Your task to perform on an android device: turn off notifications settings in the gmail app Image 0: 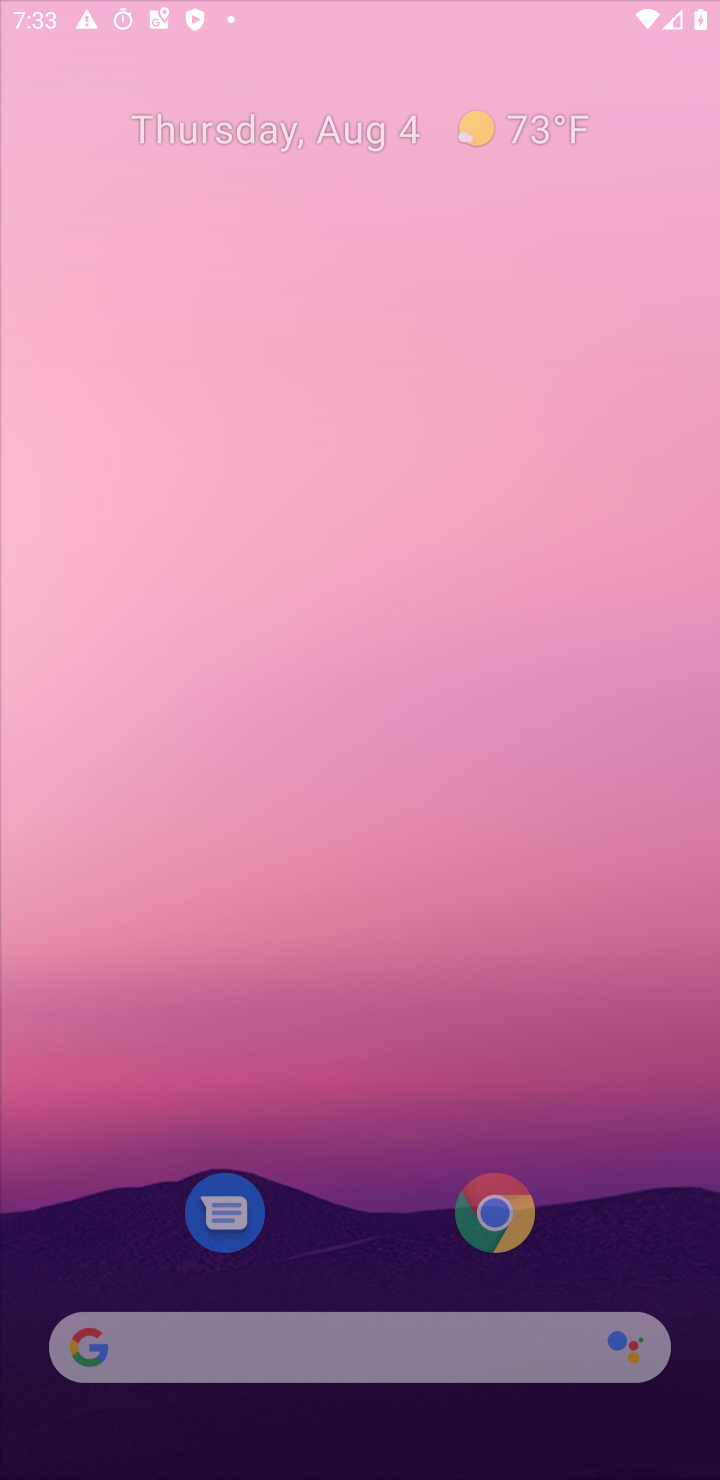
Step 0: press home button
Your task to perform on an android device: turn off notifications settings in the gmail app Image 1: 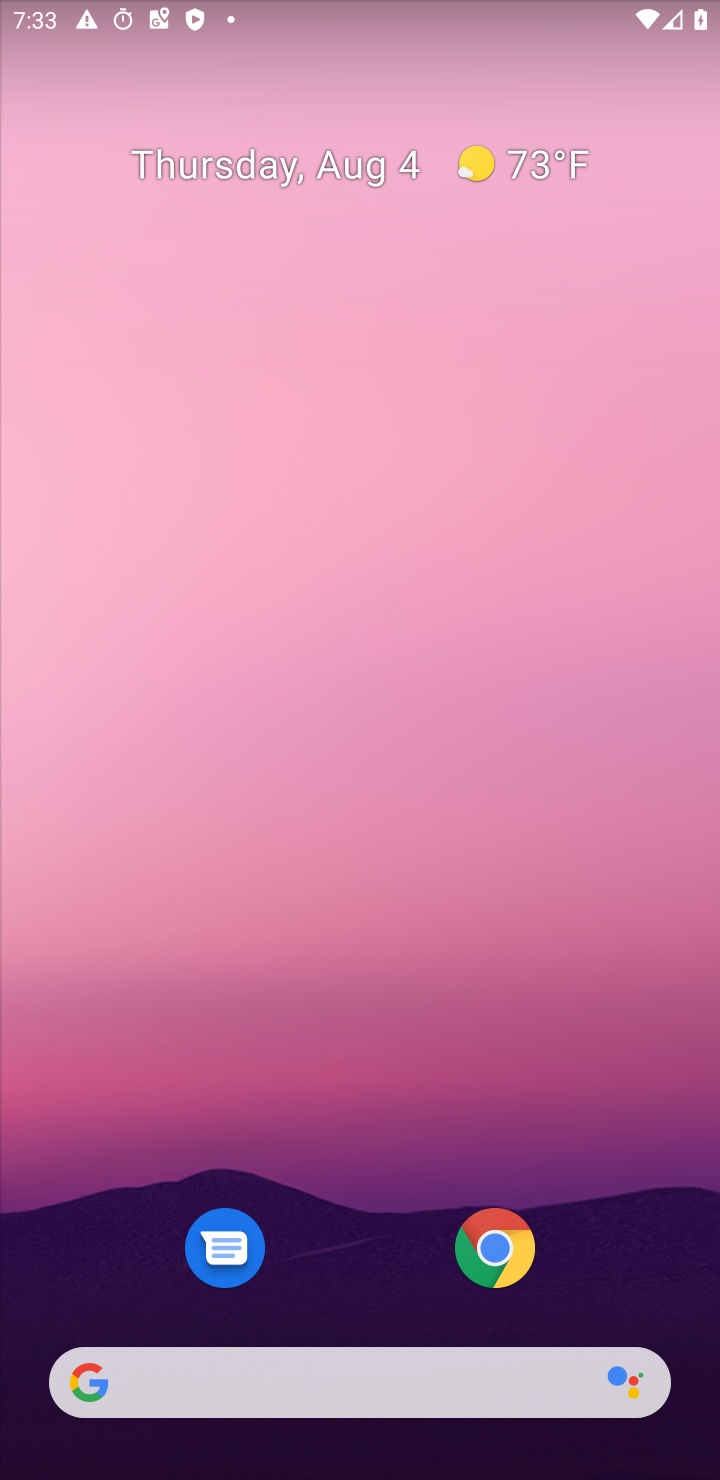
Step 1: drag from (389, 1368) to (409, 264)
Your task to perform on an android device: turn off notifications settings in the gmail app Image 2: 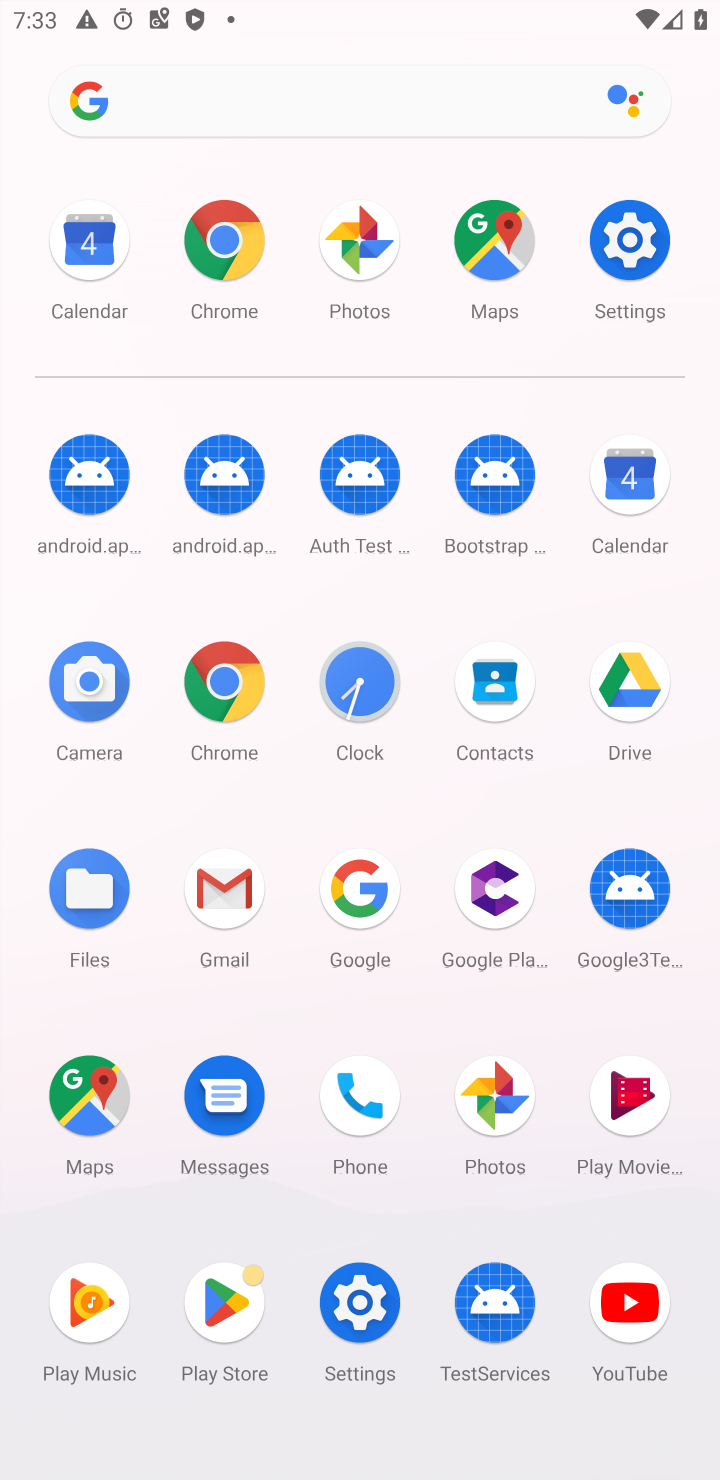
Step 2: click (241, 893)
Your task to perform on an android device: turn off notifications settings in the gmail app Image 3: 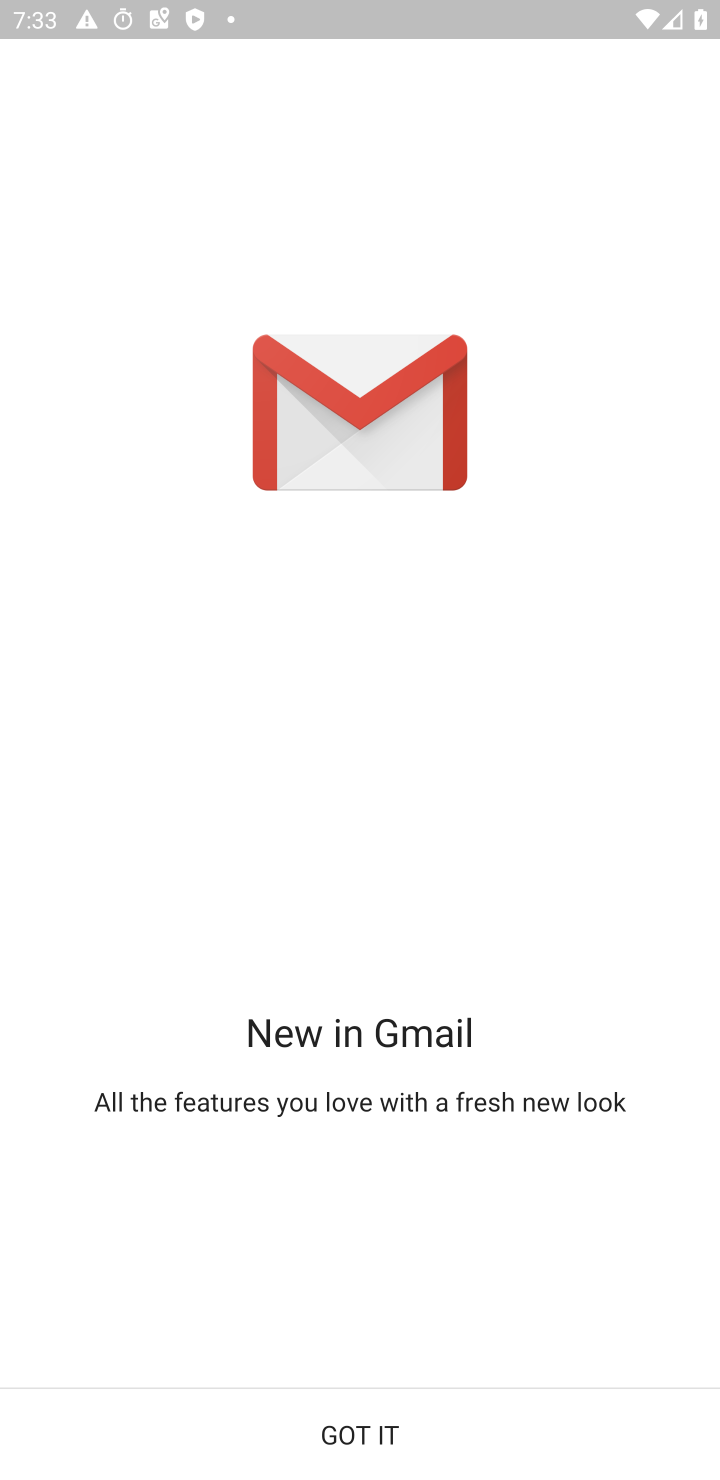
Step 3: click (298, 1436)
Your task to perform on an android device: turn off notifications settings in the gmail app Image 4: 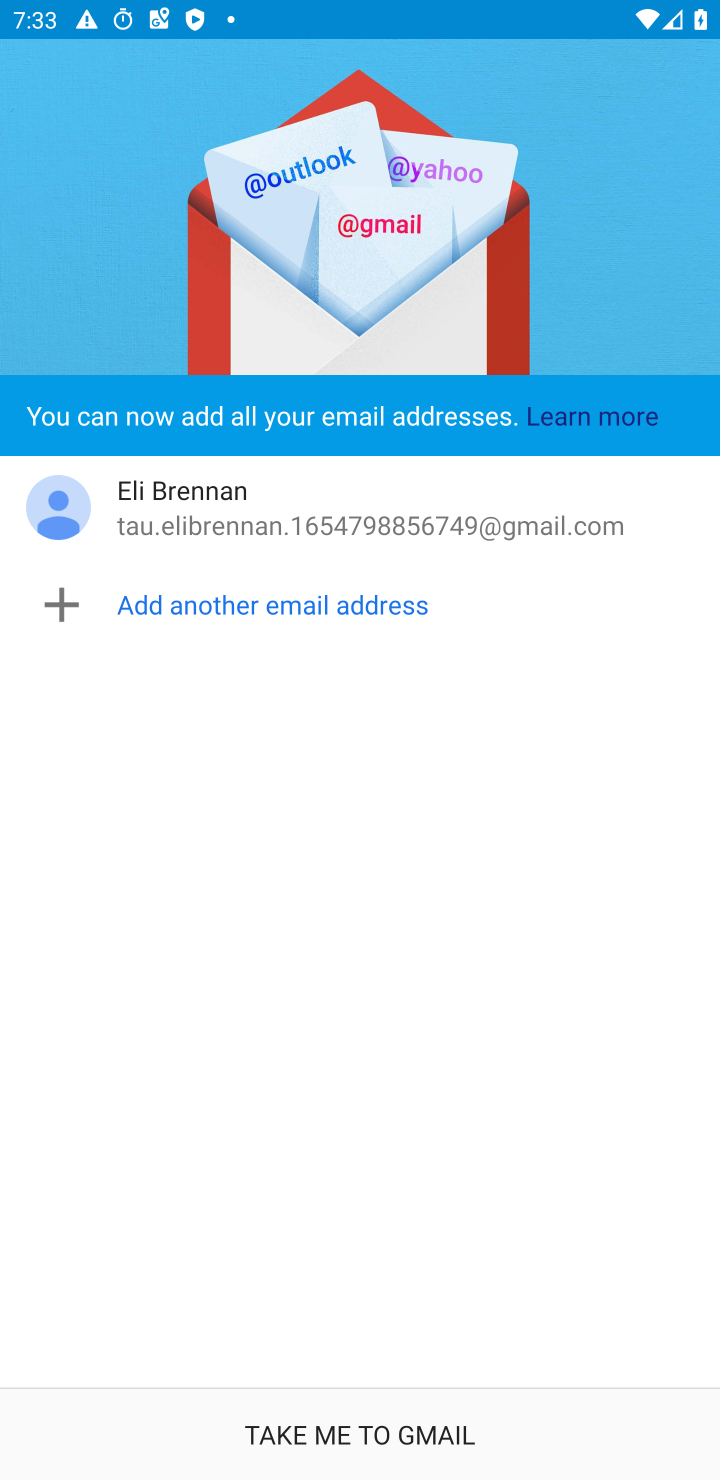
Step 4: click (366, 1448)
Your task to perform on an android device: turn off notifications settings in the gmail app Image 5: 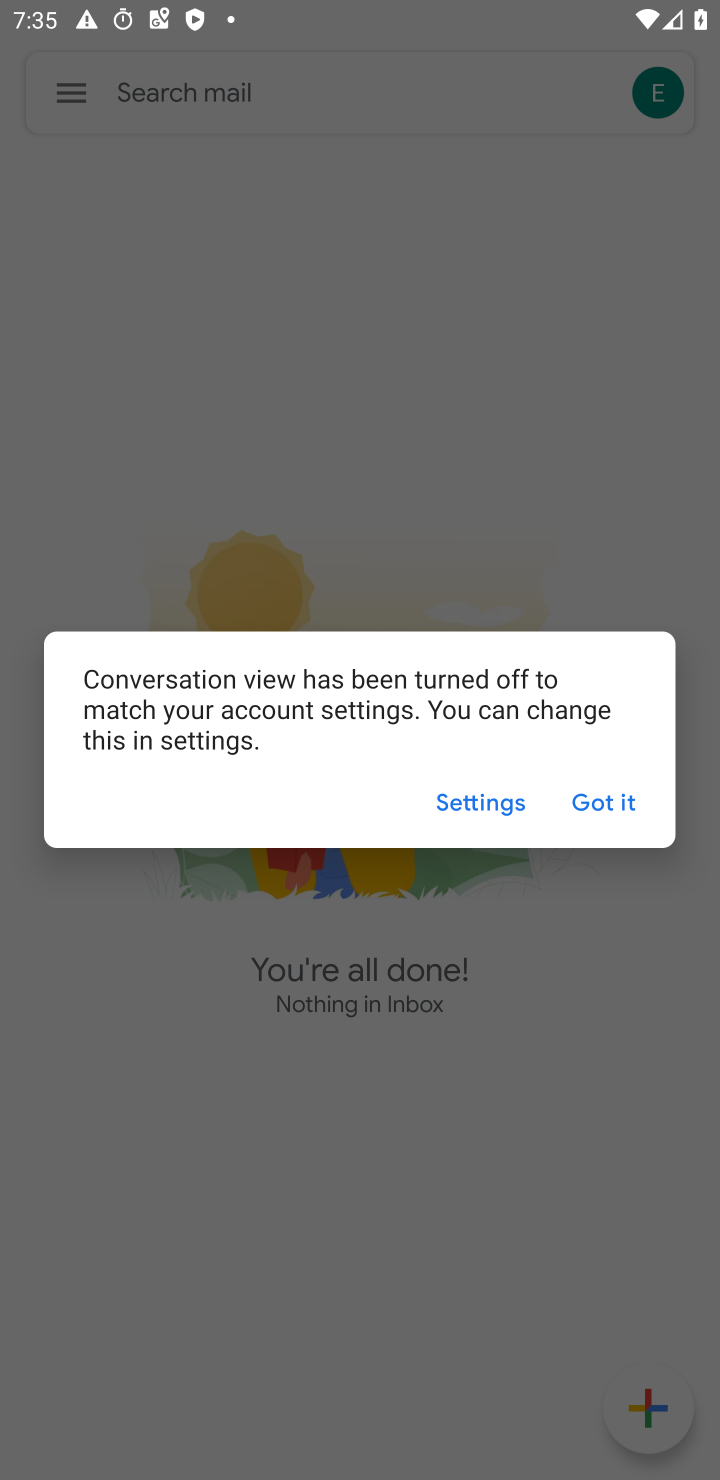
Step 5: click (627, 802)
Your task to perform on an android device: turn off notifications settings in the gmail app Image 6: 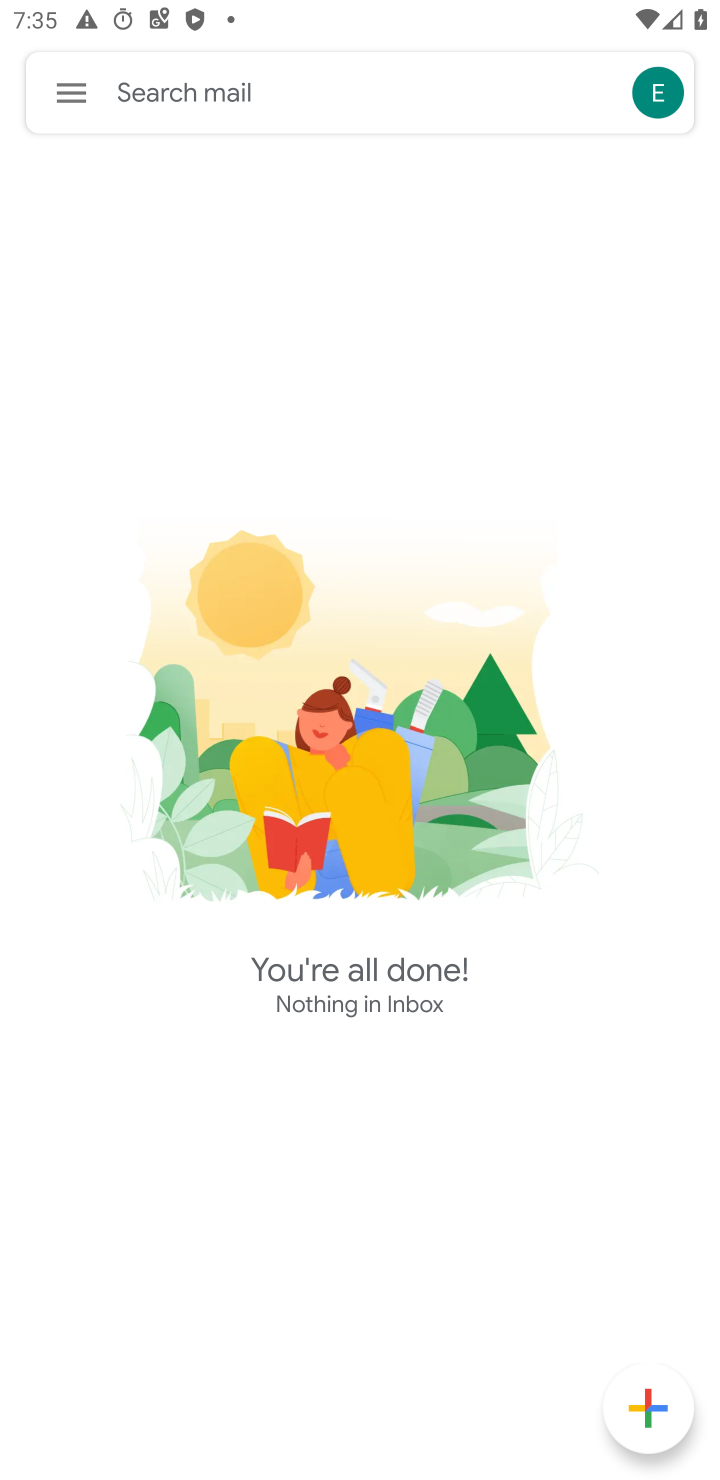
Step 6: click (76, 99)
Your task to perform on an android device: turn off notifications settings in the gmail app Image 7: 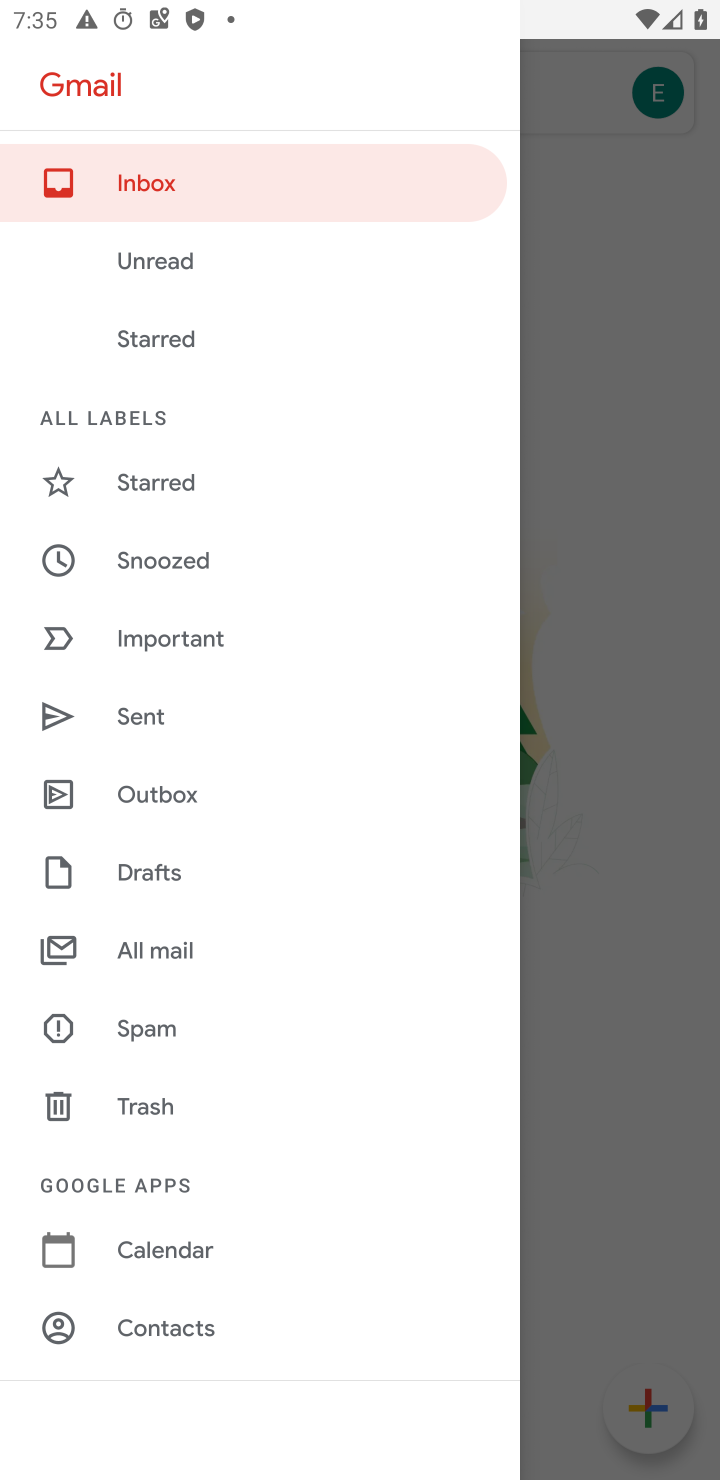
Step 7: drag from (227, 1332) to (276, 1158)
Your task to perform on an android device: turn off notifications settings in the gmail app Image 8: 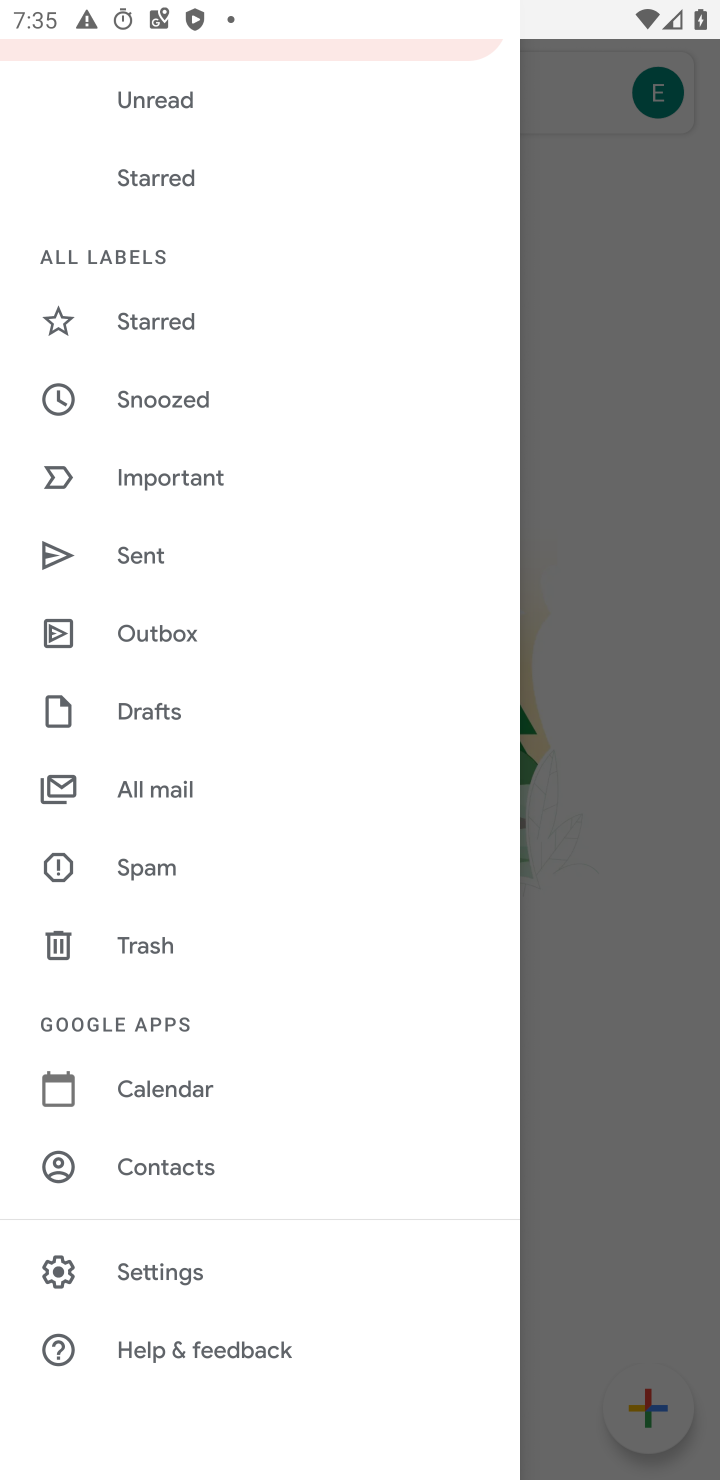
Step 8: click (171, 1276)
Your task to perform on an android device: turn off notifications settings in the gmail app Image 9: 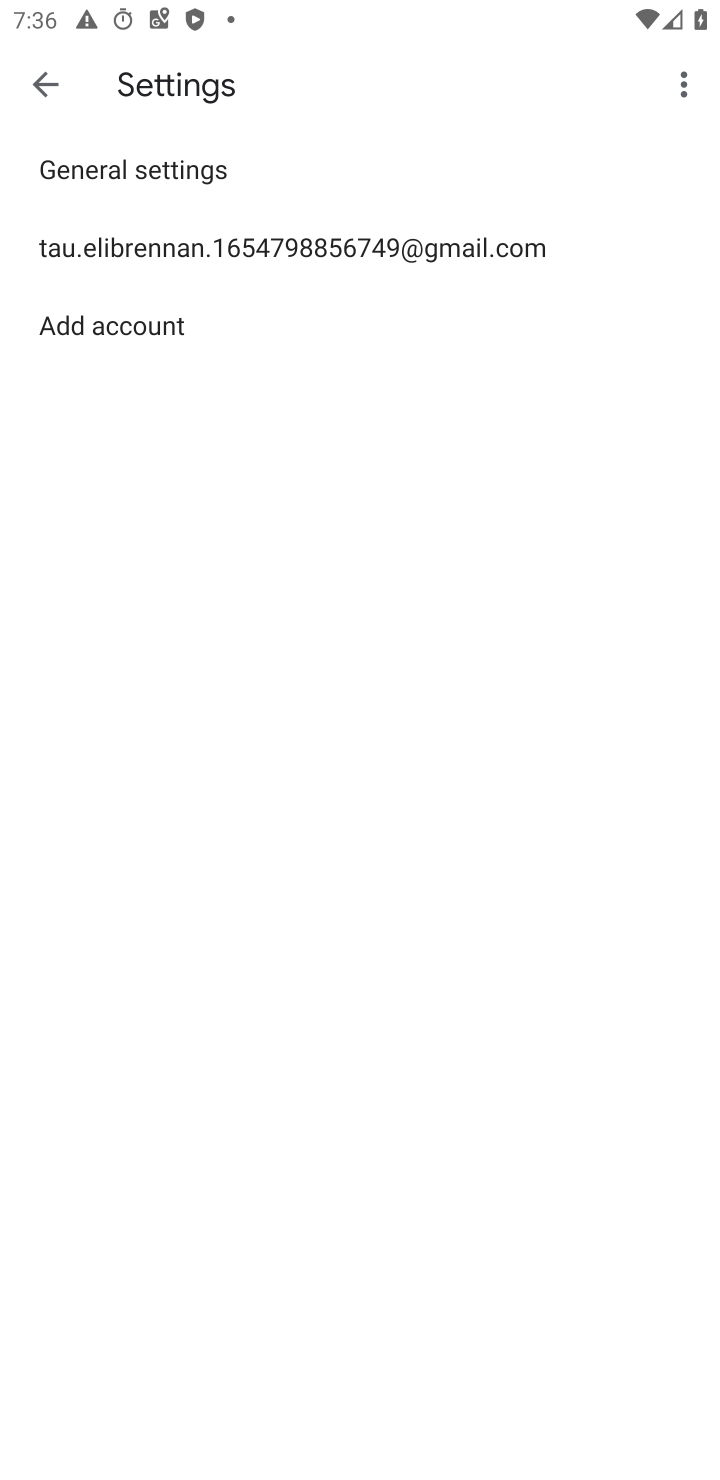
Step 9: click (215, 261)
Your task to perform on an android device: turn off notifications settings in the gmail app Image 10: 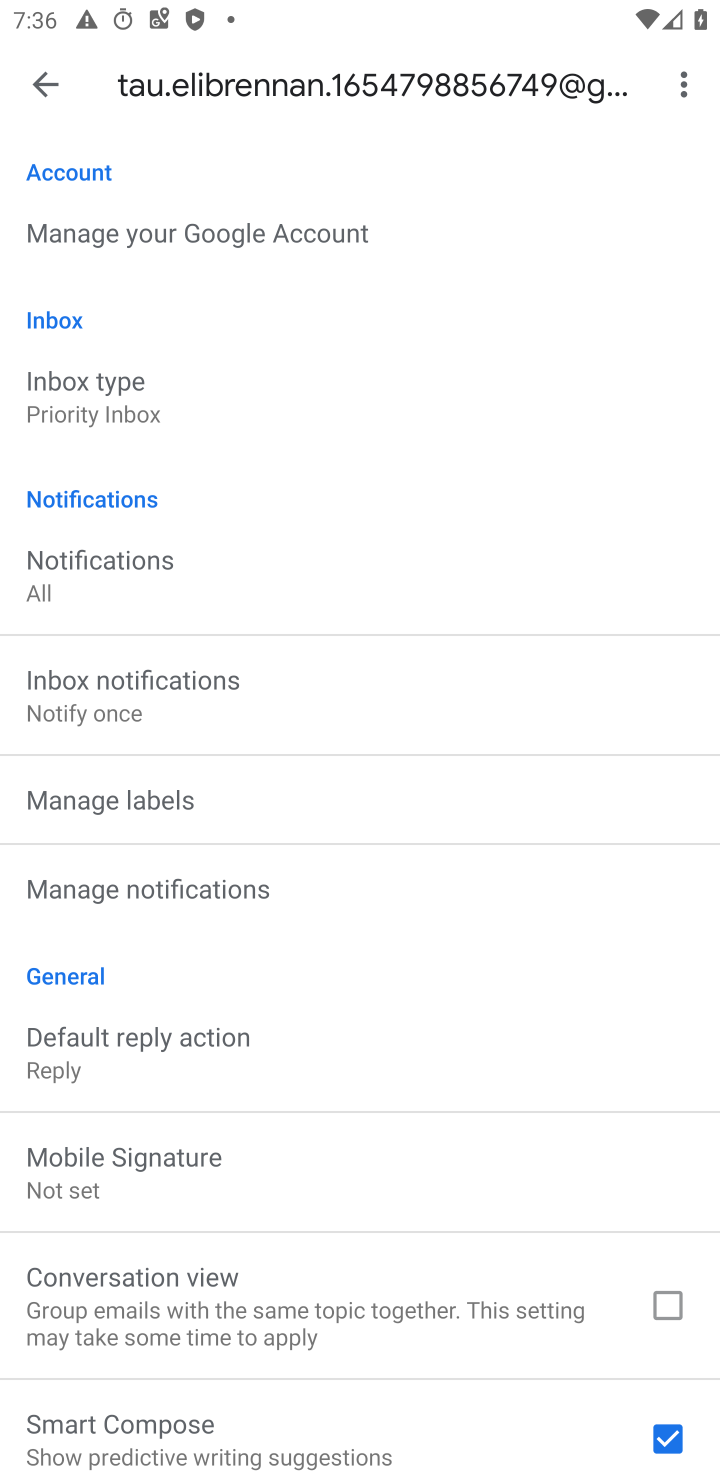
Step 10: click (119, 570)
Your task to perform on an android device: turn off notifications settings in the gmail app Image 11: 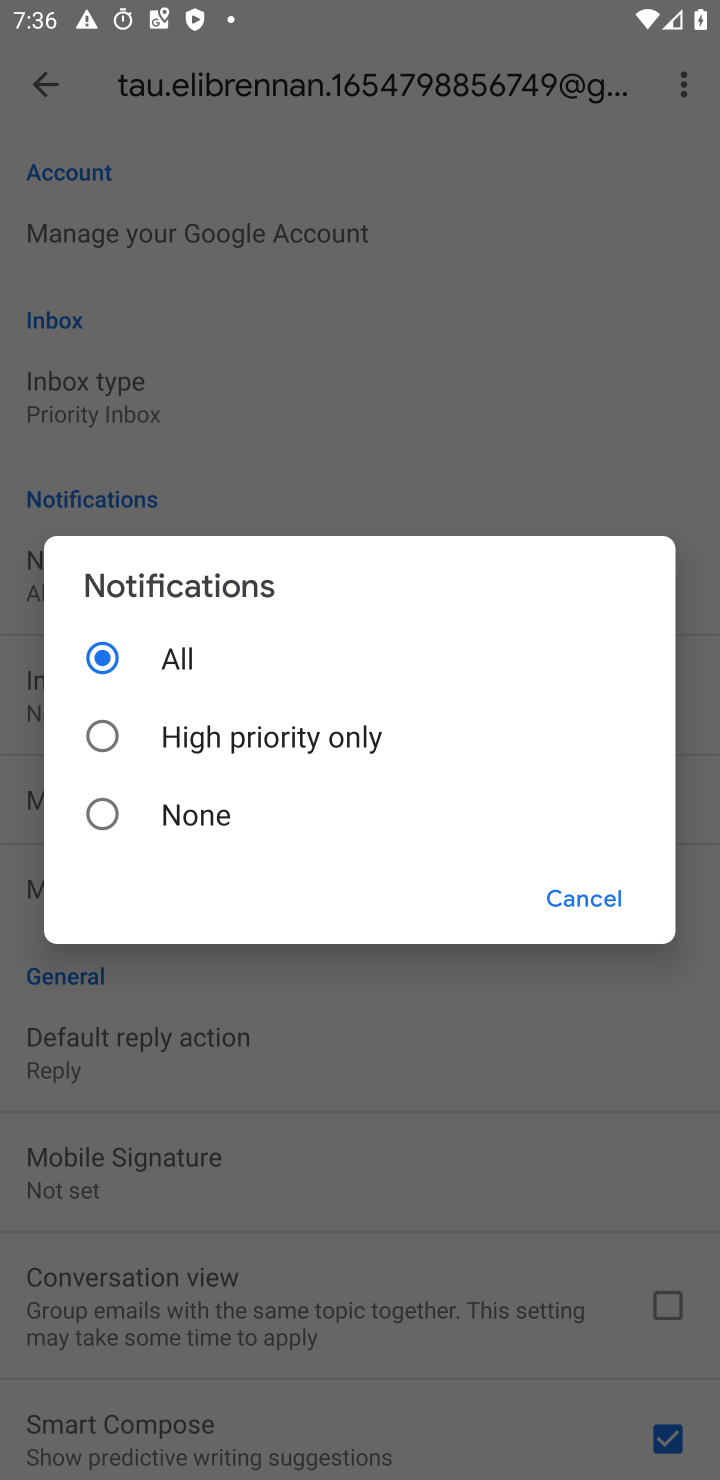
Step 11: click (245, 822)
Your task to perform on an android device: turn off notifications settings in the gmail app Image 12: 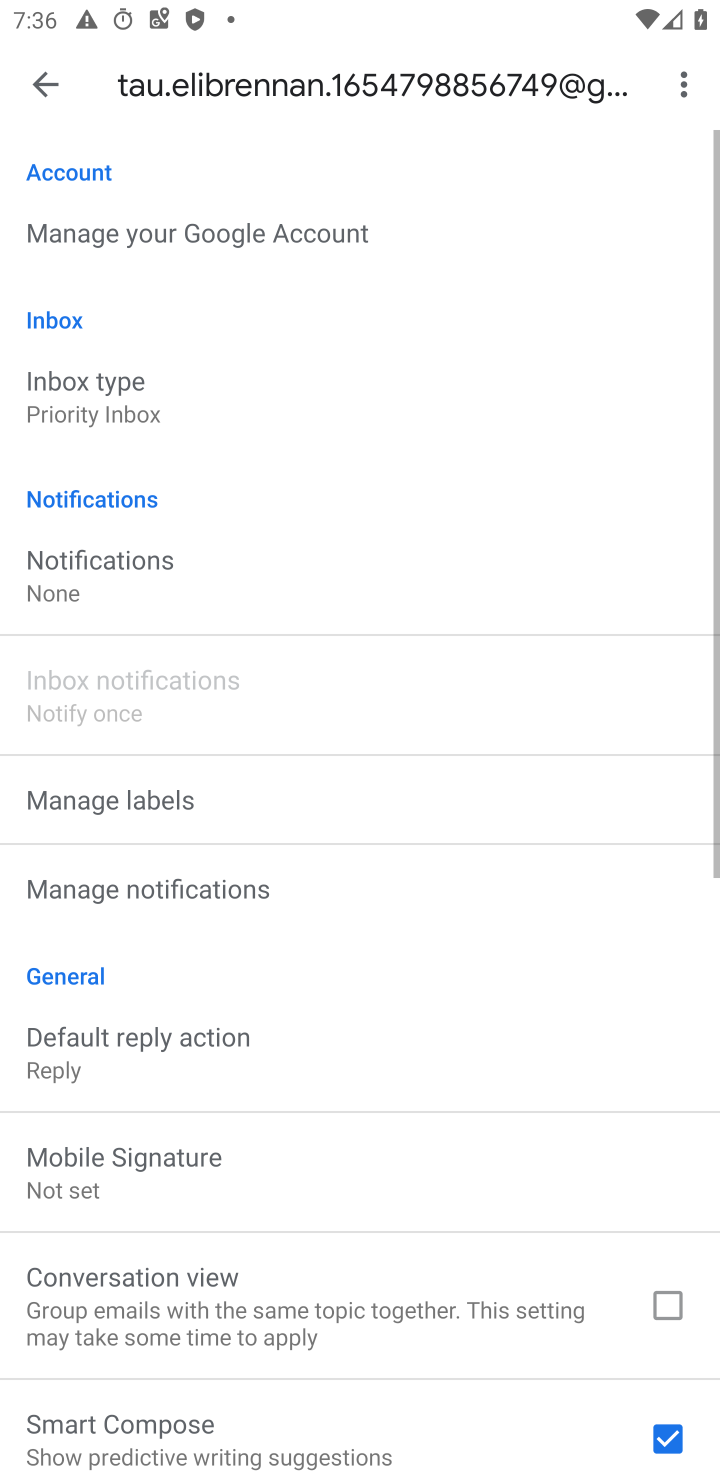
Step 12: task complete